Your task to perform on an android device: open device folders in google photos Image 0: 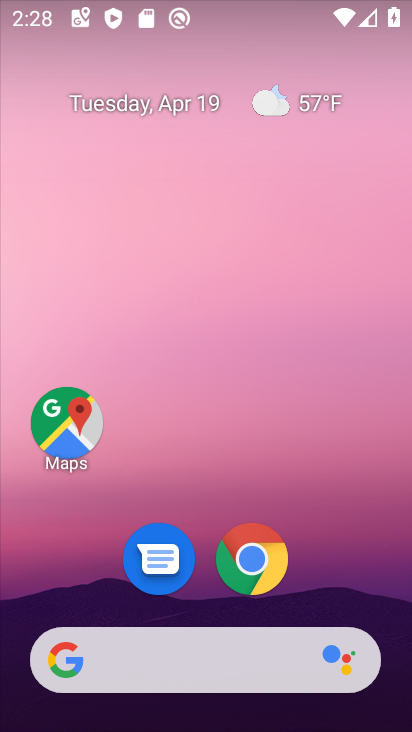
Step 0: drag from (203, 595) to (221, 88)
Your task to perform on an android device: open device folders in google photos Image 1: 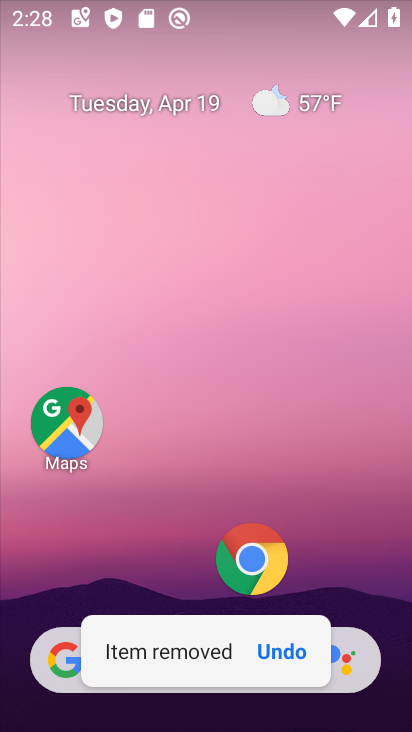
Step 1: click (276, 650)
Your task to perform on an android device: open device folders in google photos Image 2: 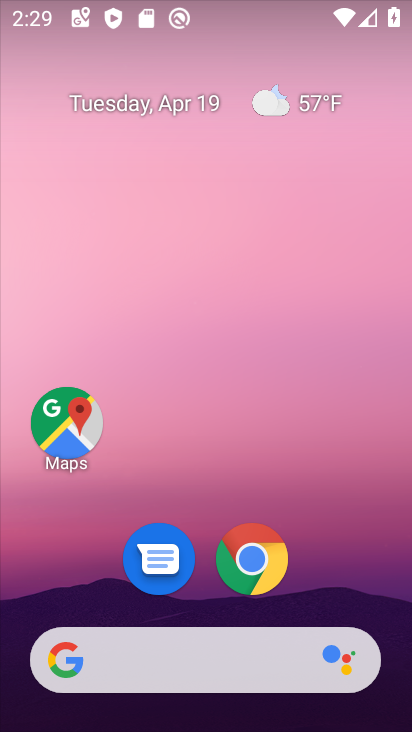
Step 2: drag from (335, 590) to (305, 30)
Your task to perform on an android device: open device folders in google photos Image 3: 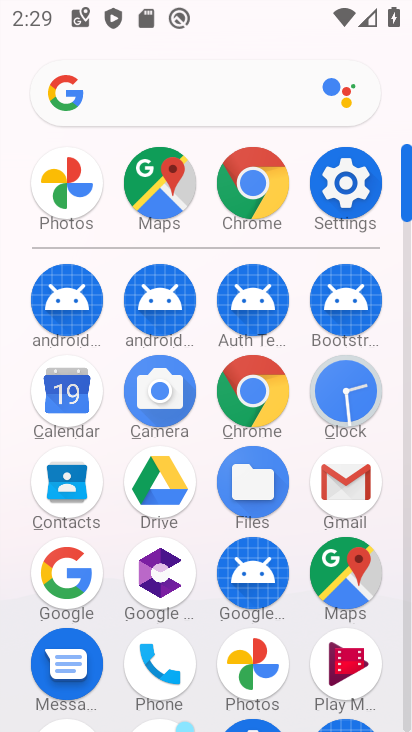
Step 3: click (254, 656)
Your task to perform on an android device: open device folders in google photos Image 4: 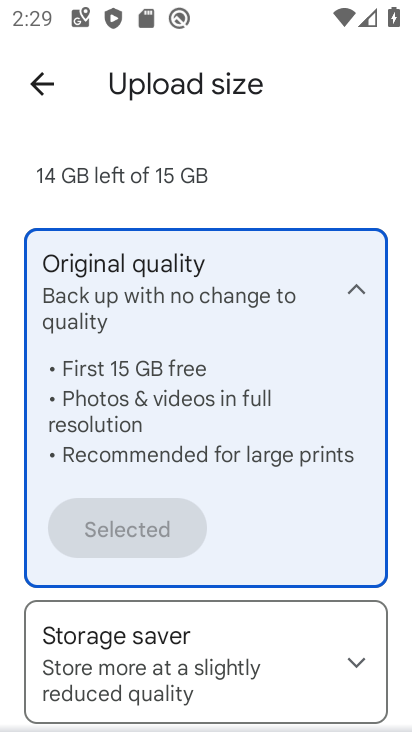
Step 4: click (51, 84)
Your task to perform on an android device: open device folders in google photos Image 5: 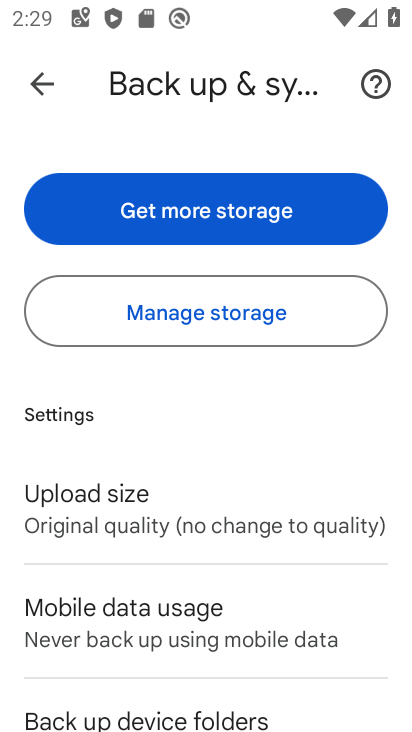
Step 5: click (48, 90)
Your task to perform on an android device: open device folders in google photos Image 6: 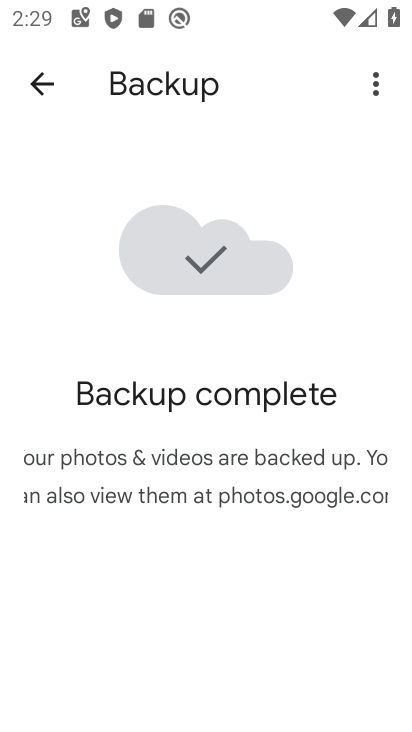
Step 6: click (48, 90)
Your task to perform on an android device: open device folders in google photos Image 7: 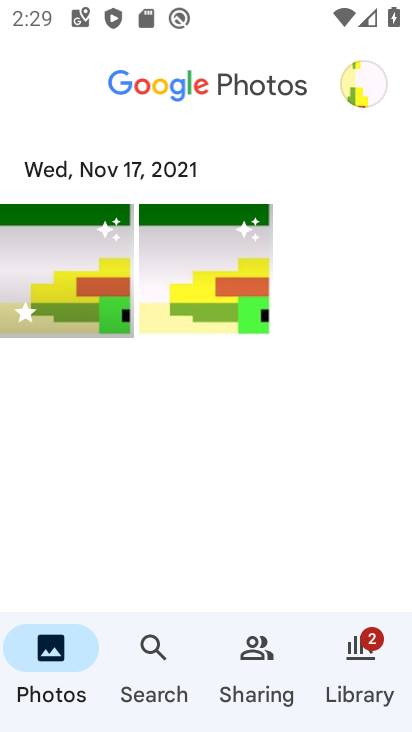
Step 7: click (150, 649)
Your task to perform on an android device: open device folders in google photos Image 8: 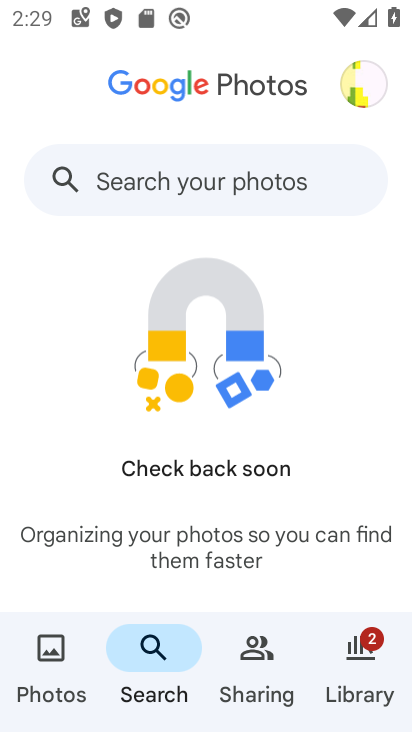
Step 8: click (131, 180)
Your task to perform on an android device: open device folders in google photos Image 9: 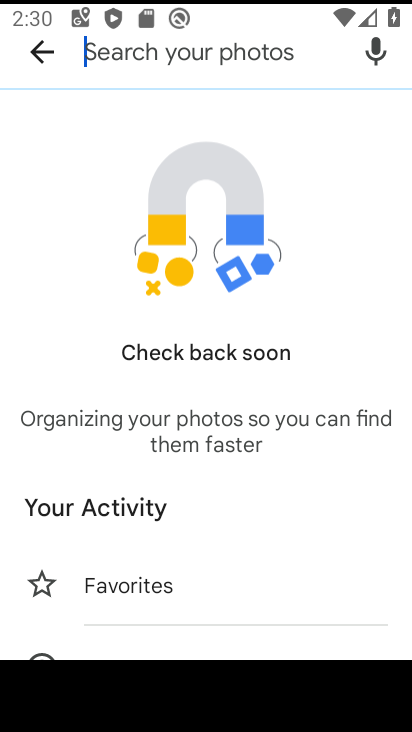
Step 9: type "device"
Your task to perform on an android device: open device folders in google photos Image 10: 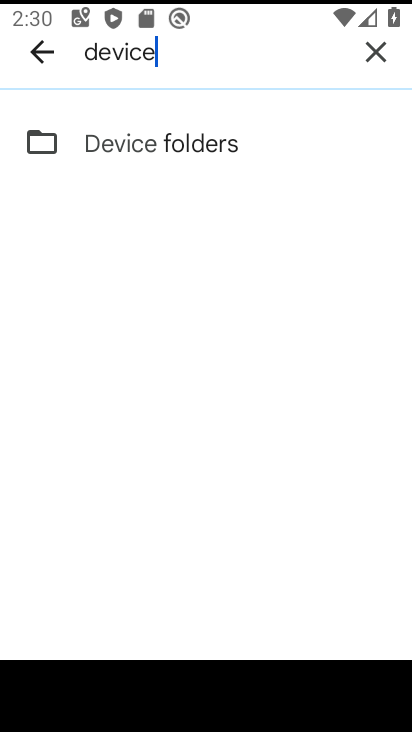
Step 10: click (226, 149)
Your task to perform on an android device: open device folders in google photos Image 11: 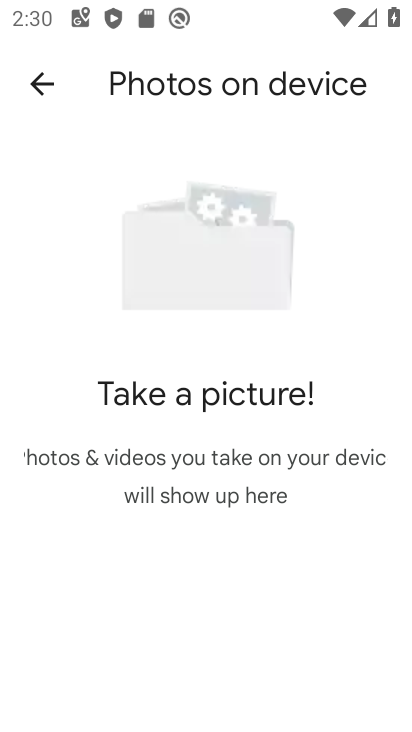
Step 11: task complete